Your task to perform on an android device: Open eBay Image 0: 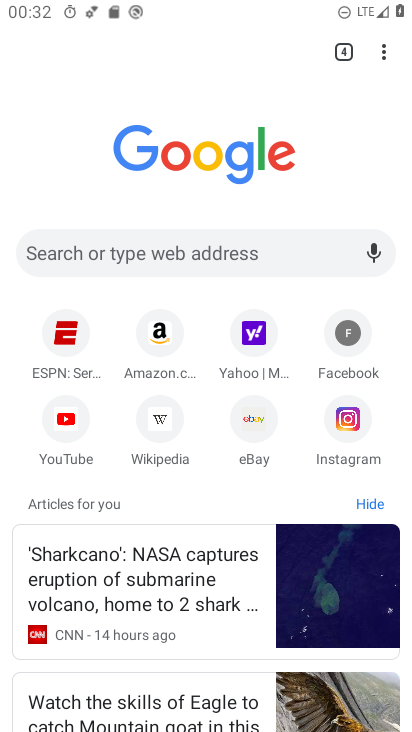
Step 0: click (168, 641)
Your task to perform on an android device: Open eBay Image 1: 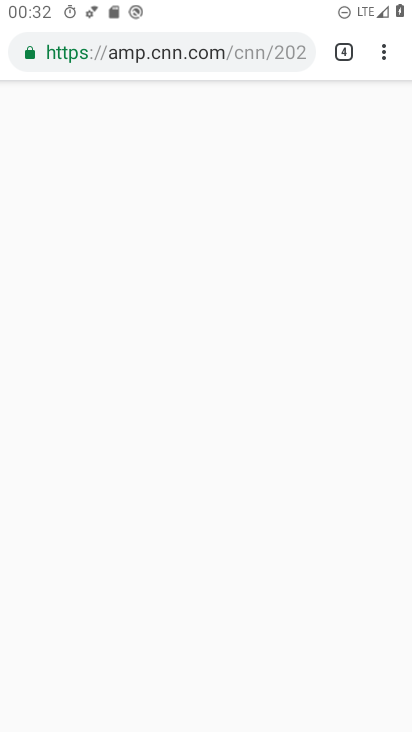
Step 1: click (354, 44)
Your task to perform on an android device: Open eBay Image 2: 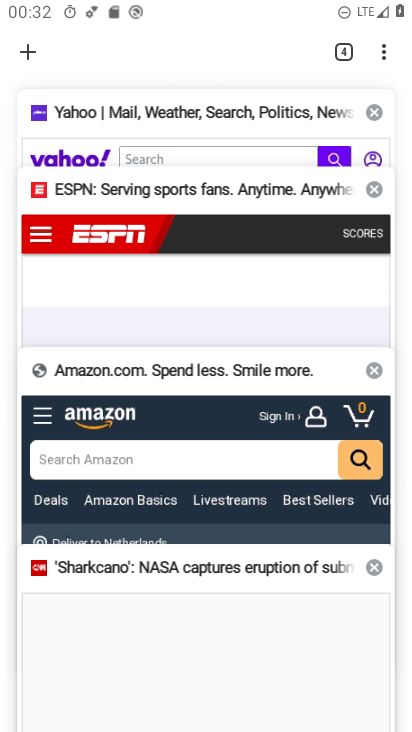
Step 2: click (37, 56)
Your task to perform on an android device: Open eBay Image 3: 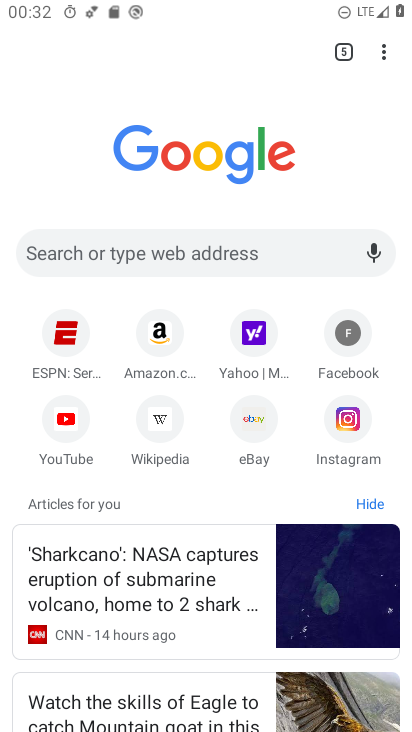
Step 3: click (254, 416)
Your task to perform on an android device: Open eBay Image 4: 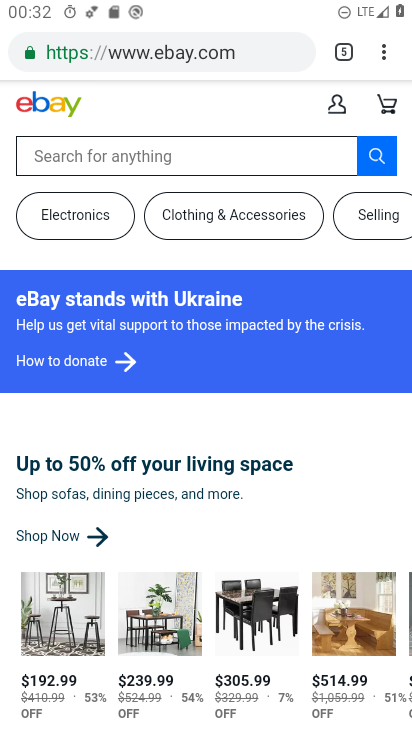
Step 4: task complete